Your task to perform on an android device: Open the web browser Image 0: 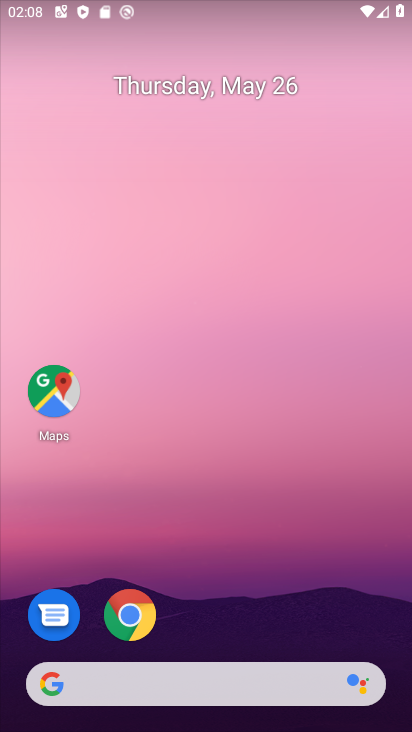
Step 0: click (135, 612)
Your task to perform on an android device: Open the web browser Image 1: 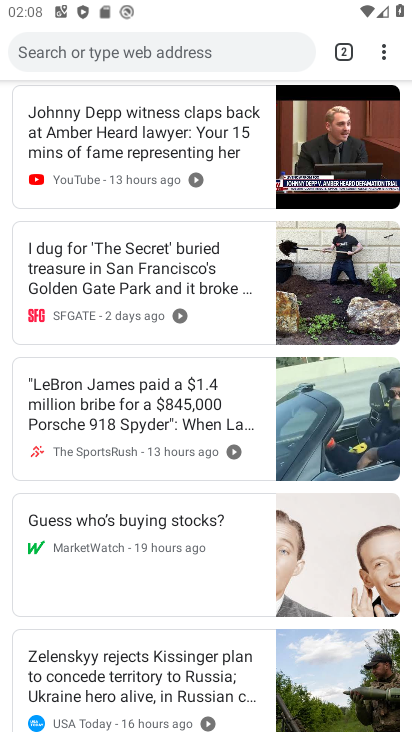
Step 1: task complete